Your task to perform on an android device: turn off translation in the chrome app Image 0: 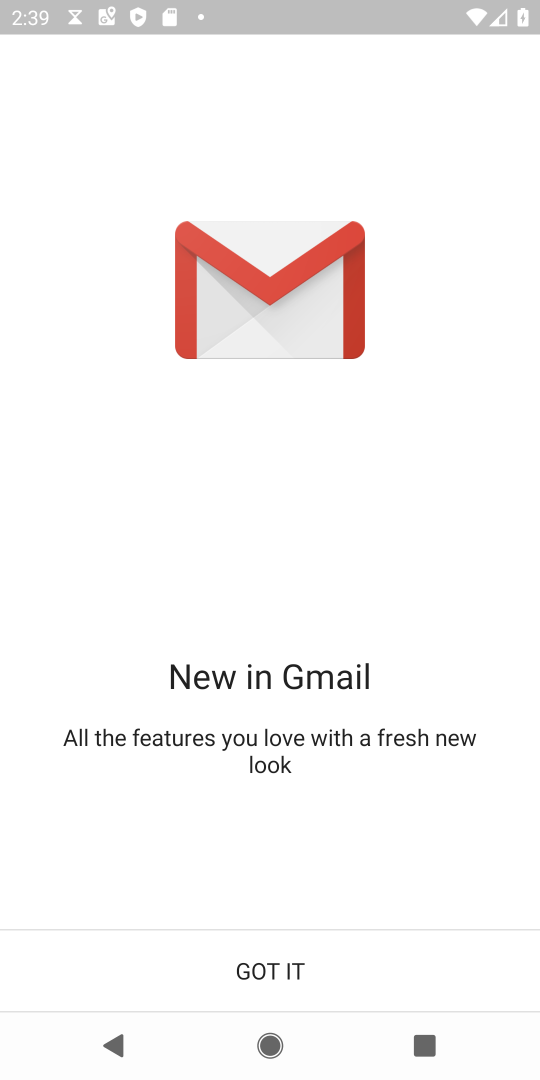
Step 0: press home button
Your task to perform on an android device: turn off translation in the chrome app Image 1: 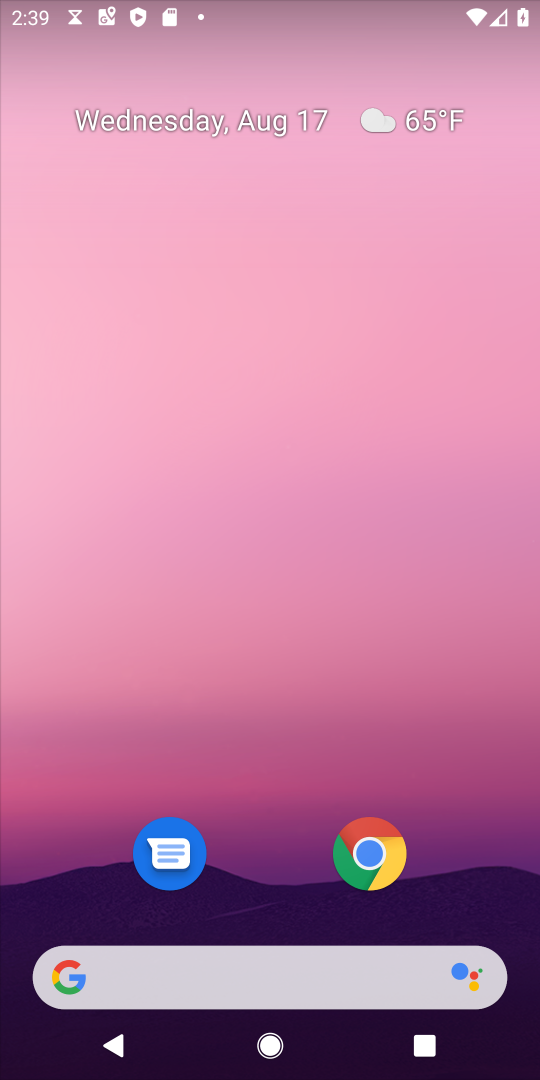
Step 1: click (373, 842)
Your task to perform on an android device: turn off translation in the chrome app Image 2: 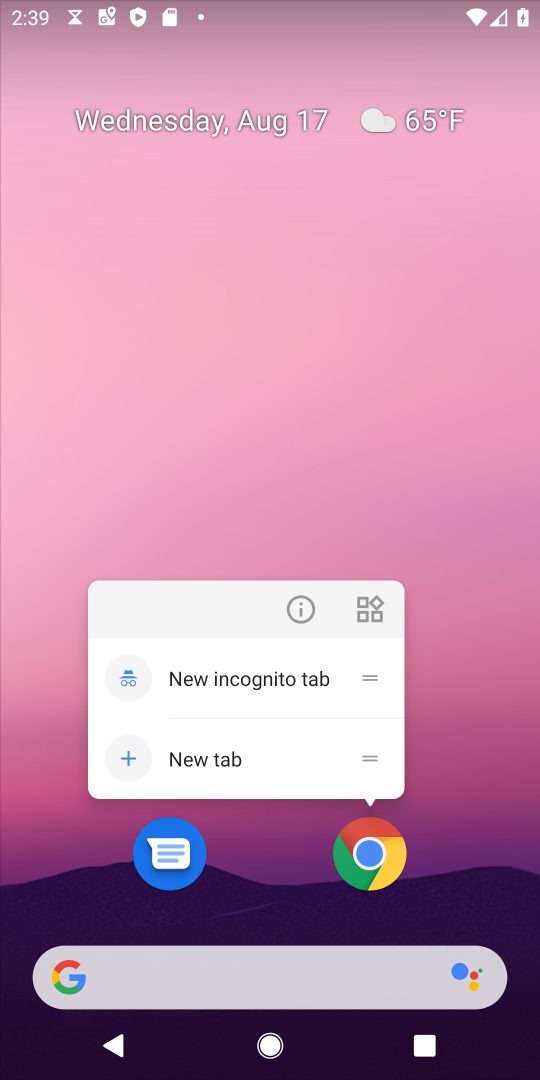
Step 2: click (382, 866)
Your task to perform on an android device: turn off translation in the chrome app Image 3: 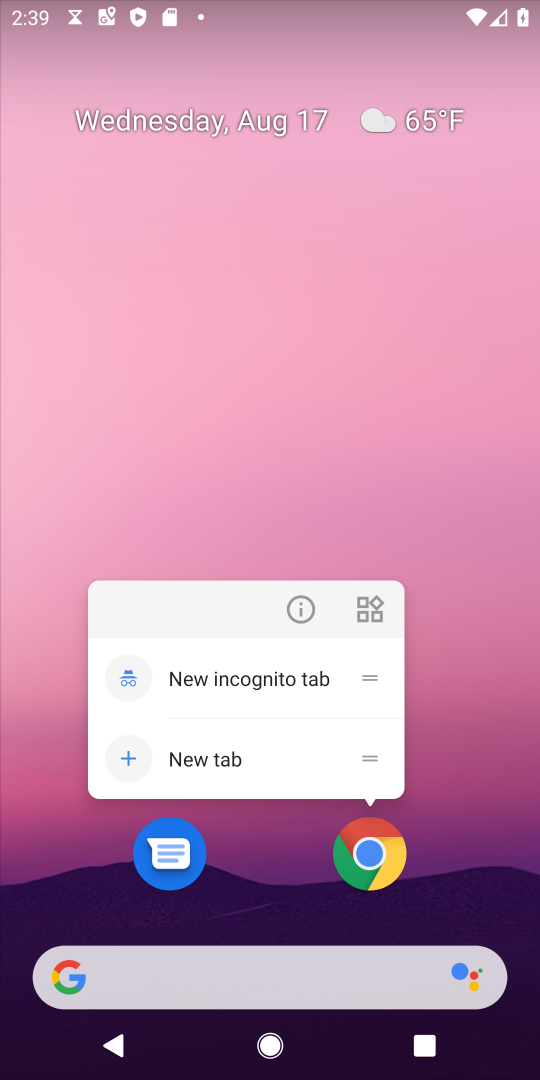
Step 3: click (382, 866)
Your task to perform on an android device: turn off translation in the chrome app Image 4: 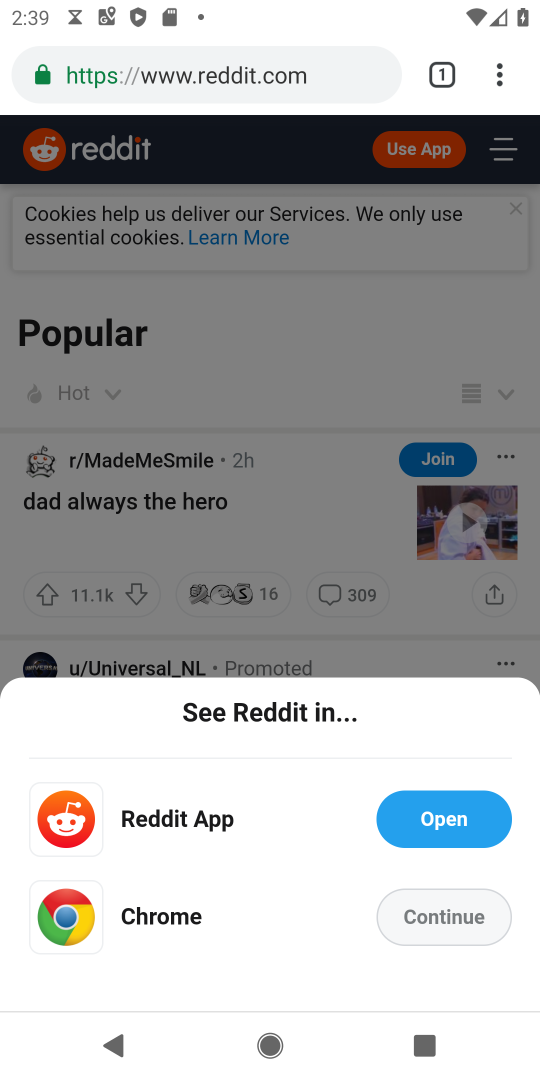
Step 4: drag from (498, 62) to (267, 910)
Your task to perform on an android device: turn off translation in the chrome app Image 5: 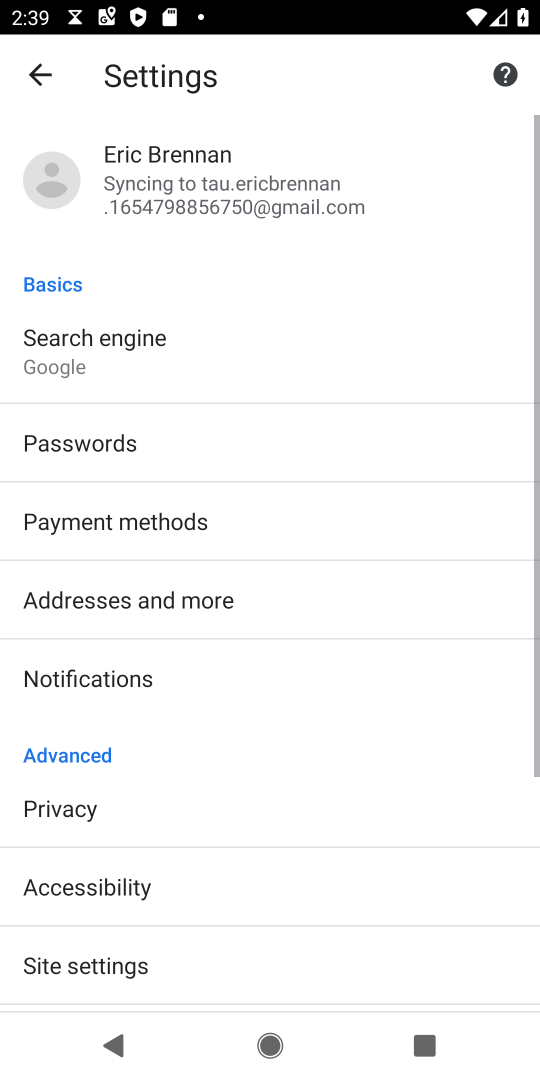
Step 5: drag from (304, 901) to (307, 265)
Your task to perform on an android device: turn off translation in the chrome app Image 6: 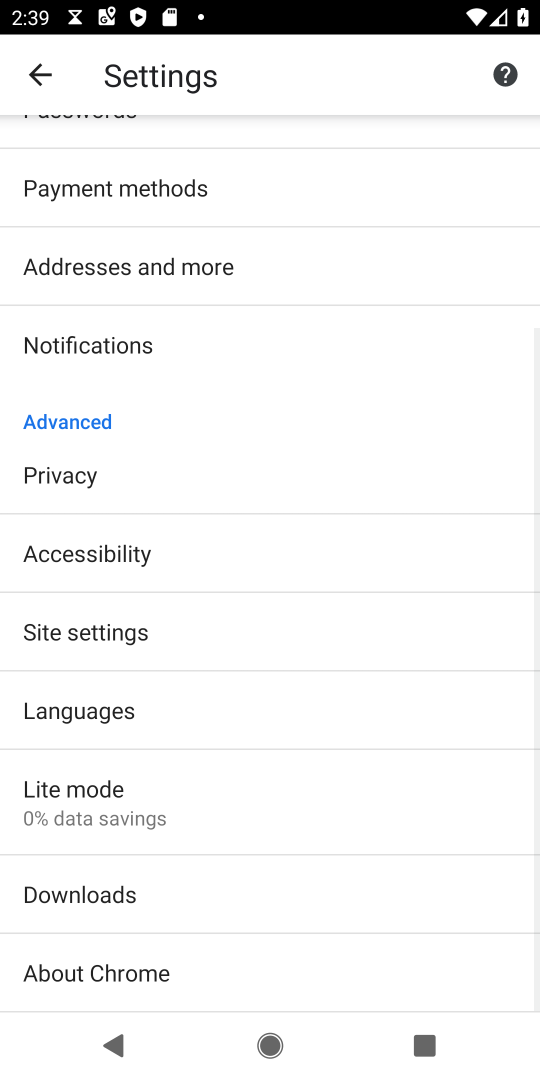
Step 6: click (71, 719)
Your task to perform on an android device: turn off translation in the chrome app Image 7: 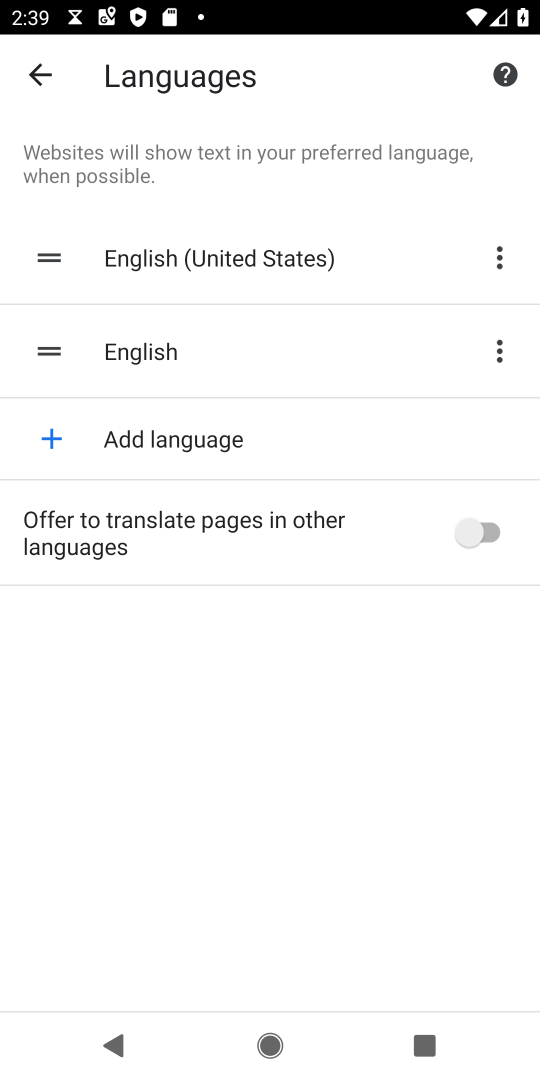
Step 7: task complete